Your task to perform on an android device: Show me the alarms in the clock app Image 0: 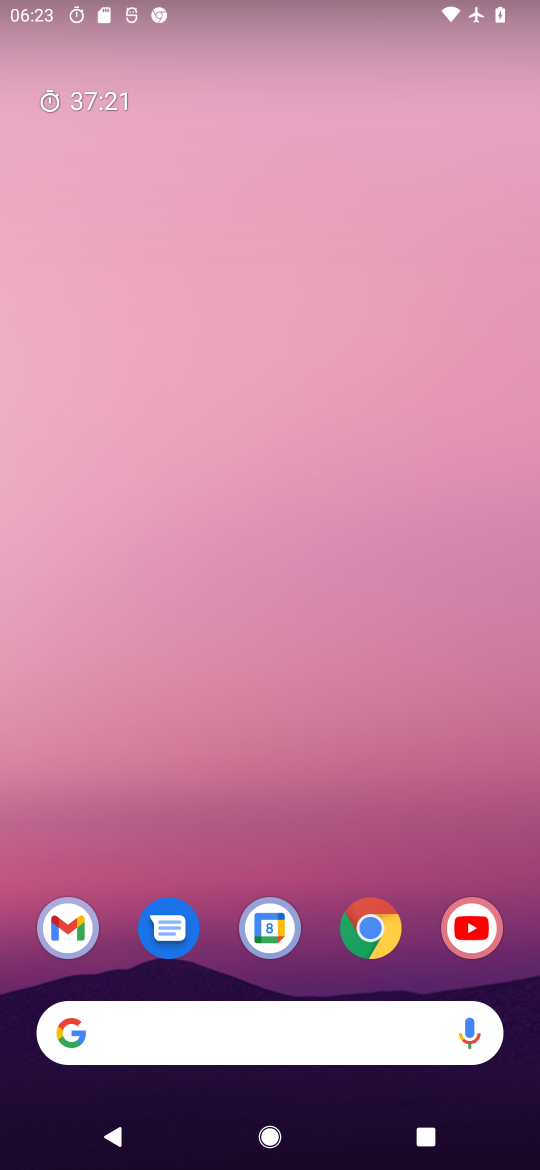
Step 0: drag from (212, 908) to (215, 154)
Your task to perform on an android device: Show me the alarms in the clock app Image 1: 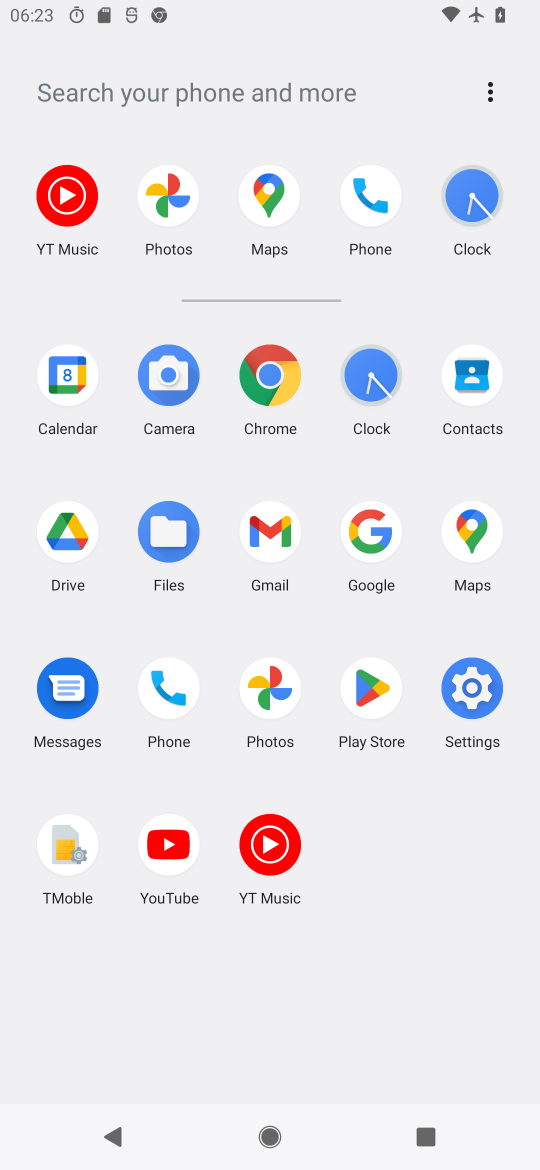
Step 1: click (348, 375)
Your task to perform on an android device: Show me the alarms in the clock app Image 2: 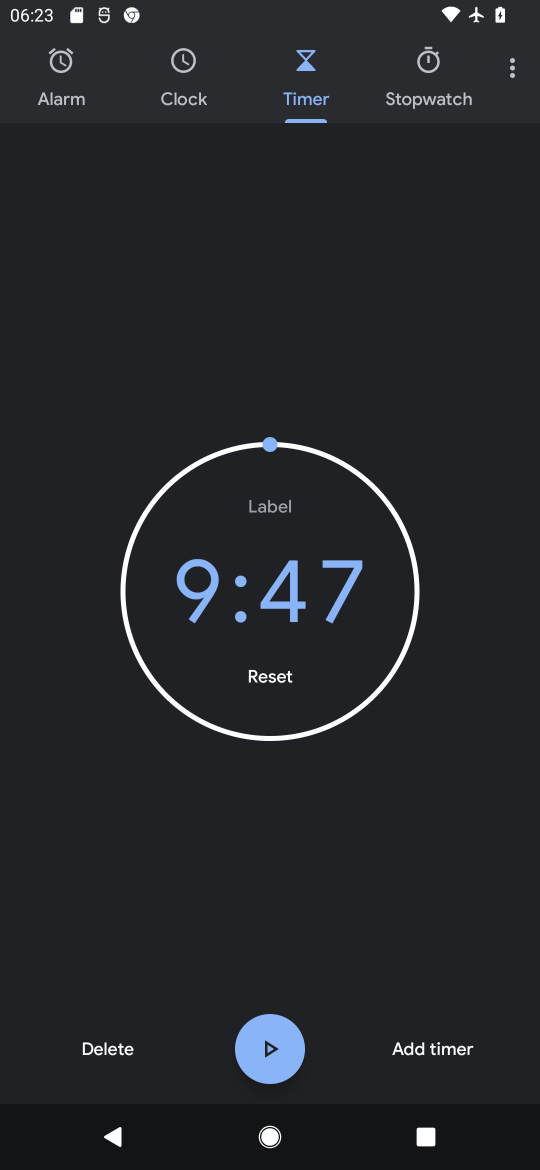
Step 2: click (97, 1056)
Your task to perform on an android device: Show me the alarms in the clock app Image 3: 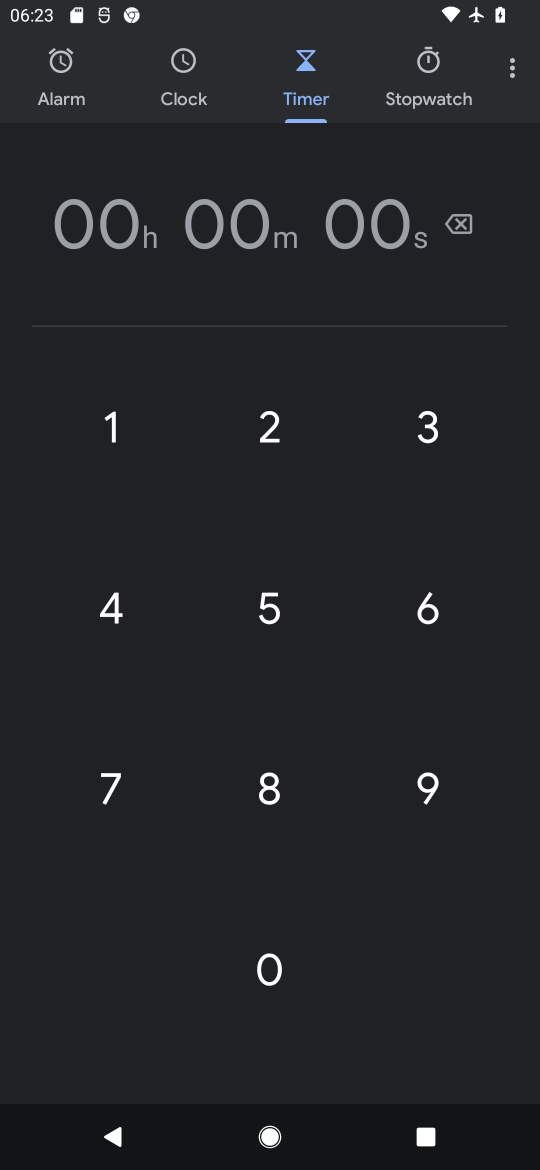
Step 3: click (76, 81)
Your task to perform on an android device: Show me the alarms in the clock app Image 4: 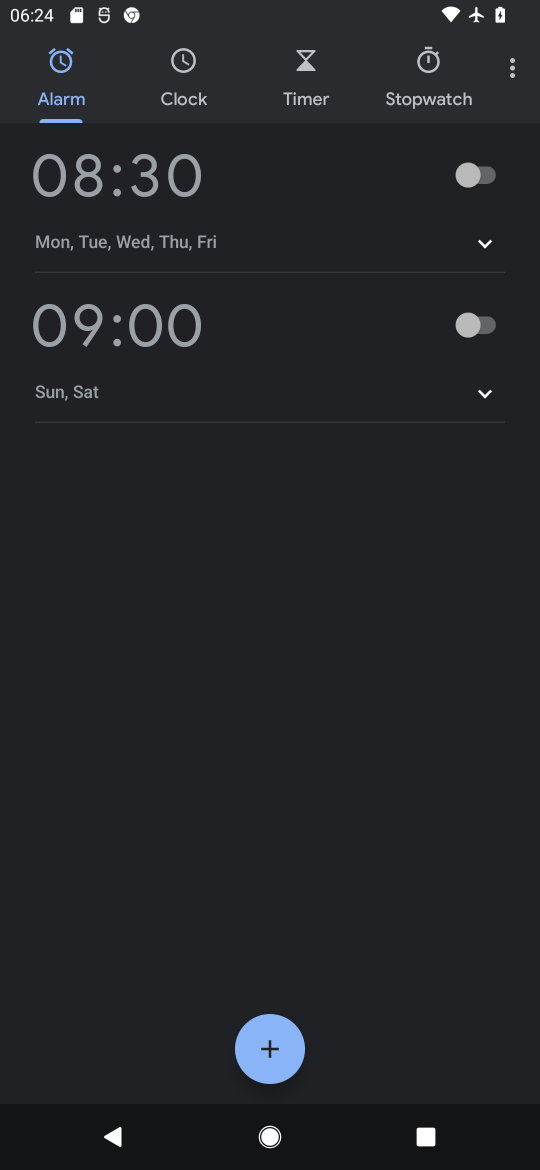
Step 4: task complete